Your task to perform on an android device: Open sound settings Image 0: 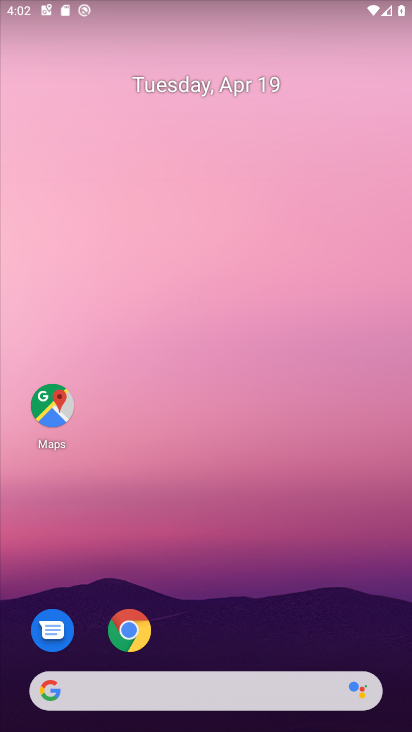
Step 0: drag from (240, 529) to (353, 247)
Your task to perform on an android device: Open sound settings Image 1: 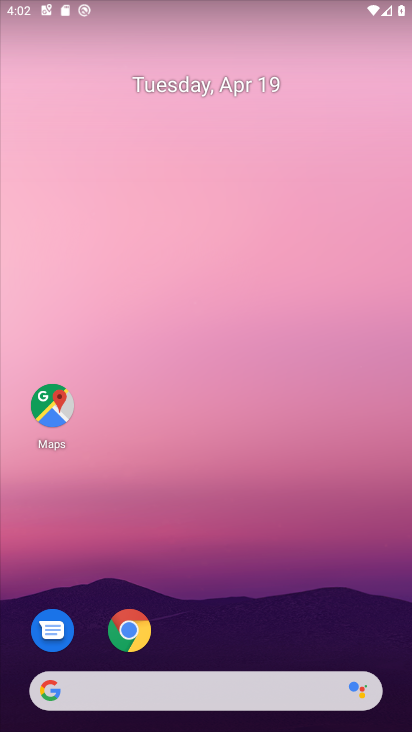
Step 1: drag from (243, 566) to (238, 66)
Your task to perform on an android device: Open sound settings Image 2: 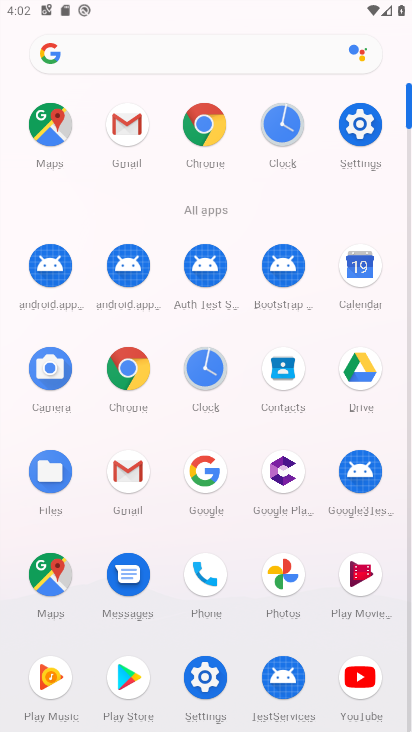
Step 2: click (364, 129)
Your task to perform on an android device: Open sound settings Image 3: 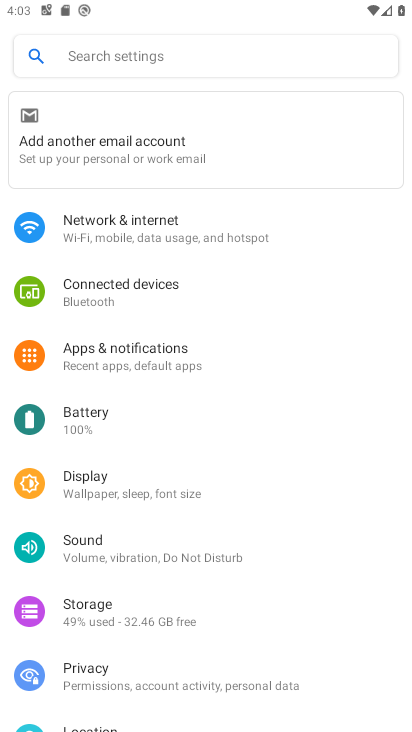
Step 3: click (97, 542)
Your task to perform on an android device: Open sound settings Image 4: 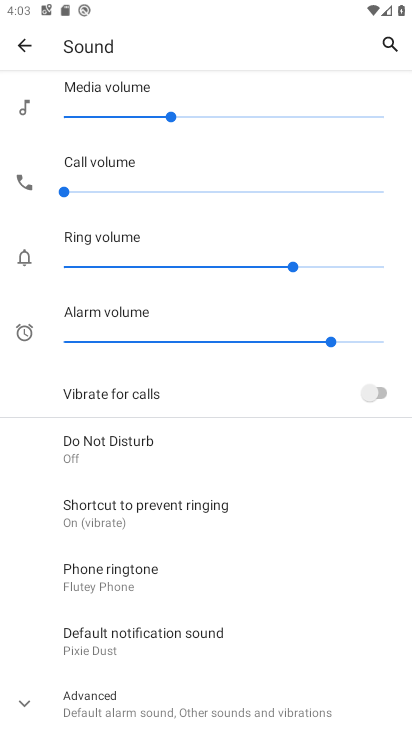
Step 4: task complete